Your task to perform on an android device: show emergency info Image 0: 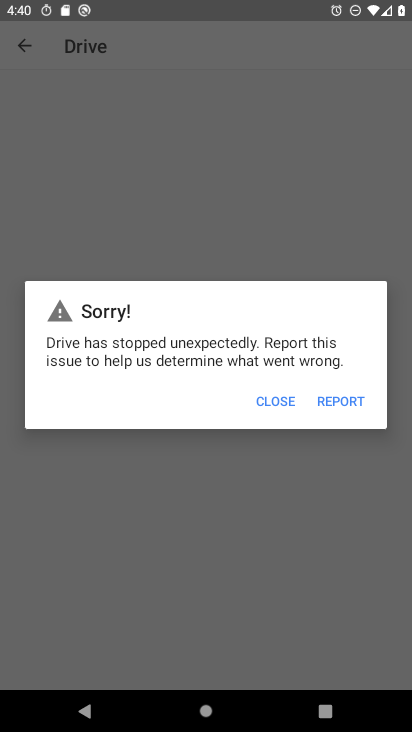
Step 0: press home button
Your task to perform on an android device: show emergency info Image 1: 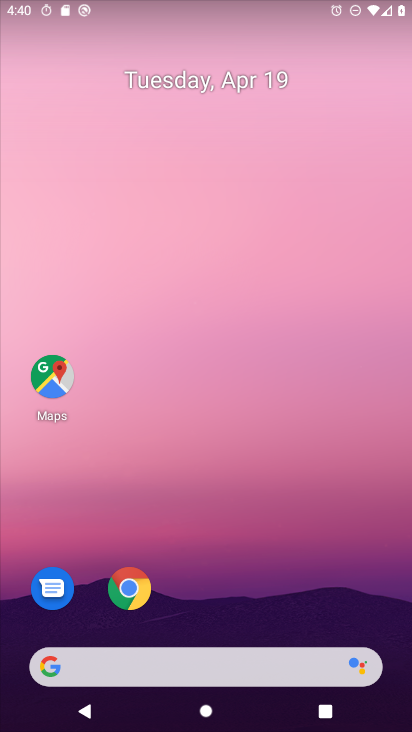
Step 1: drag from (244, 520) to (256, 88)
Your task to perform on an android device: show emergency info Image 2: 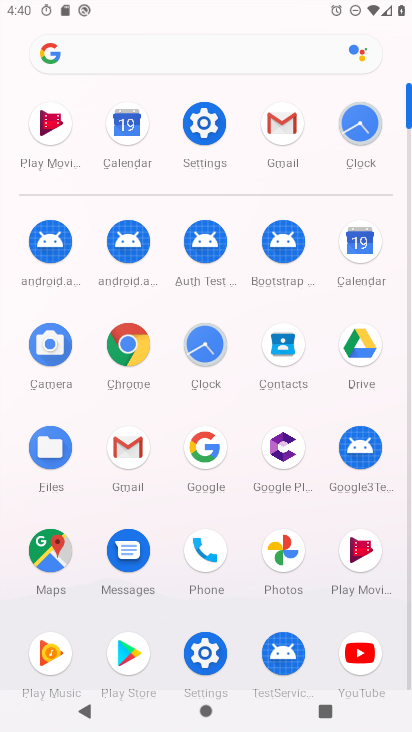
Step 2: click (202, 123)
Your task to perform on an android device: show emergency info Image 3: 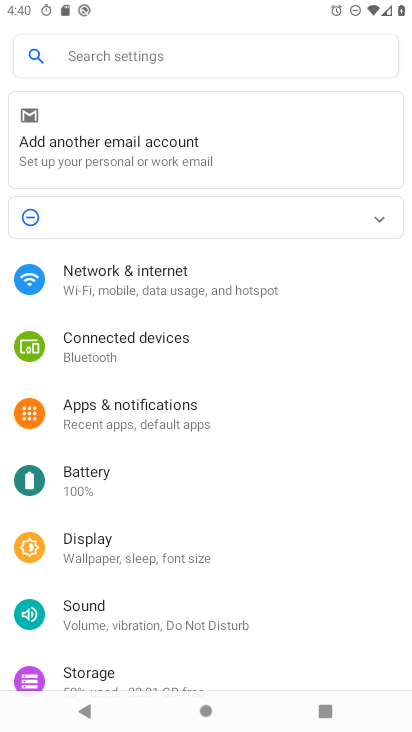
Step 3: drag from (214, 478) to (224, 81)
Your task to perform on an android device: show emergency info Image 4: 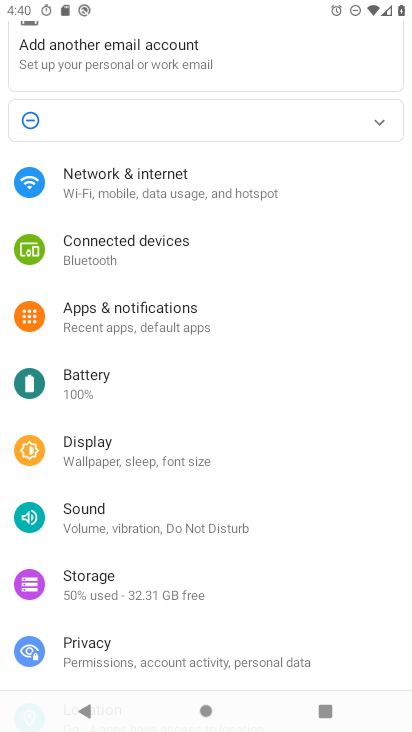
Step 4: drag from (225, 565) to (206, 116)
Your task to perform on an android device: show emergency info Image 5: 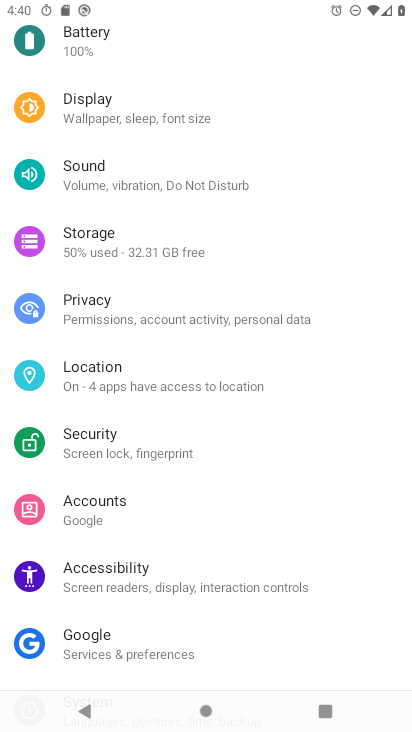
Step 5: drag from (207, 625) to (216, 220)
Your task to perform on an android device: show emergency info Image 6: 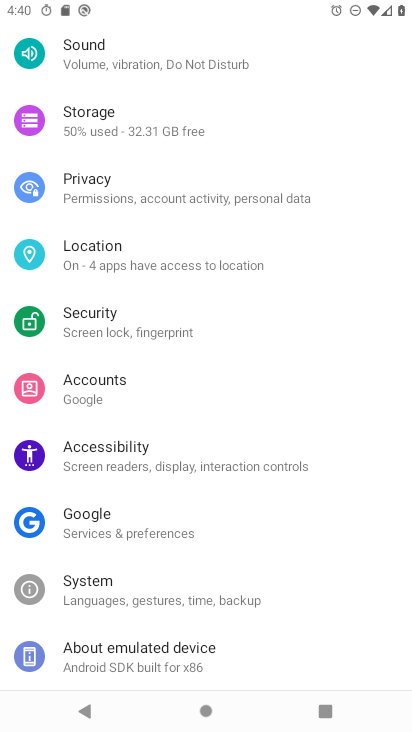
Step 6: click (193, 648)
Your task to perform on an android device: show emergency info Image 7: 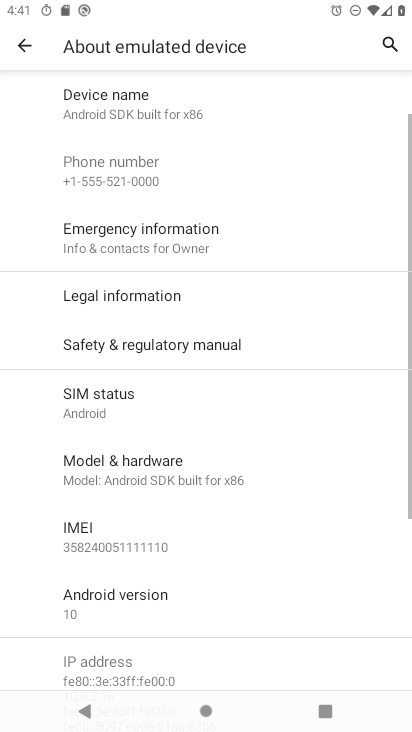
Step 7: click (152, 241)
Your task to perform on an android device: show emergency info Image 8: 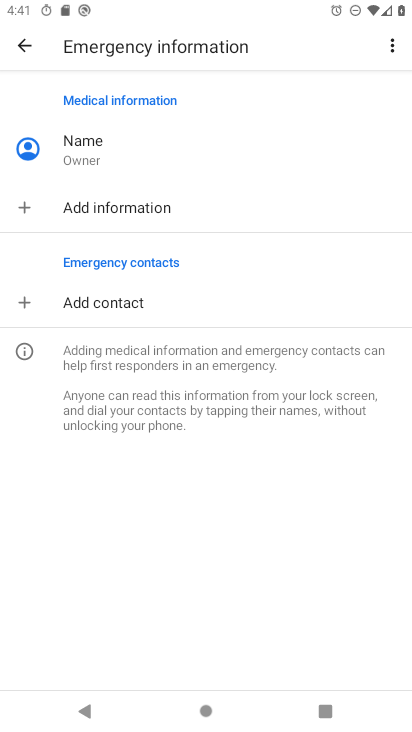
Step 8: task complete